Your task to perform on an android device: Go to battery settings Image 0: 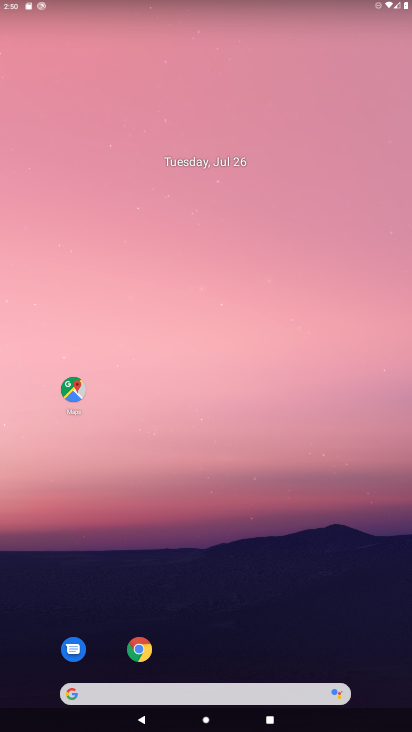
Step 0: drag from (207, 682) to (208, 106)
Your task to perform on an android device: Go to battery settings Image 1: 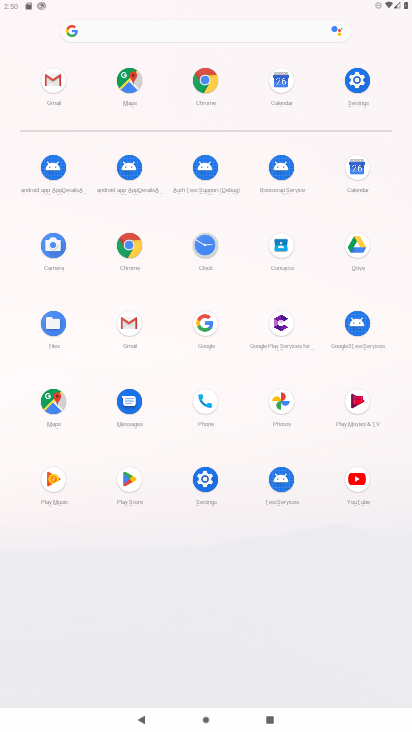
Step 1: click (362, 80)
Your task to perform on an android device: Go to battery settings Image 2: 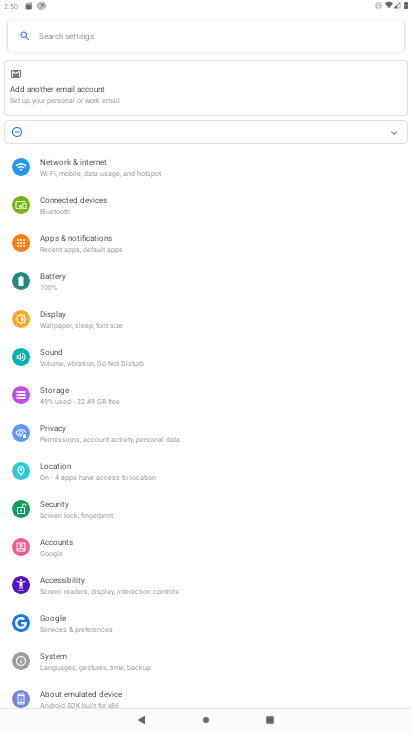
Step 2: click (56, 282)
Your task to perform on an android device: Go to battery settings Image 3: 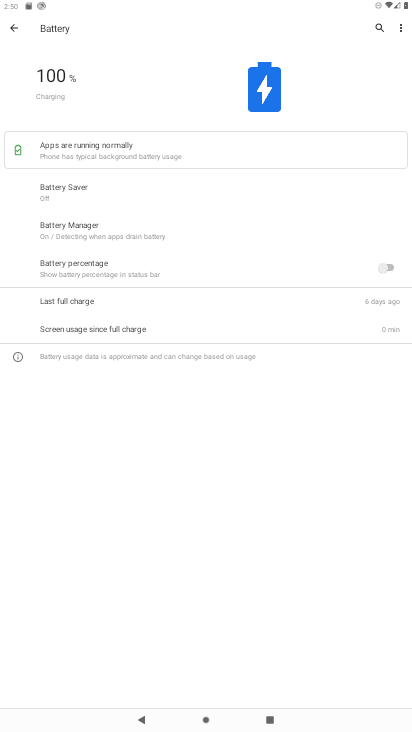
Step 3: task complete